Your task to perform on an android device: Go to display settings Image 0: 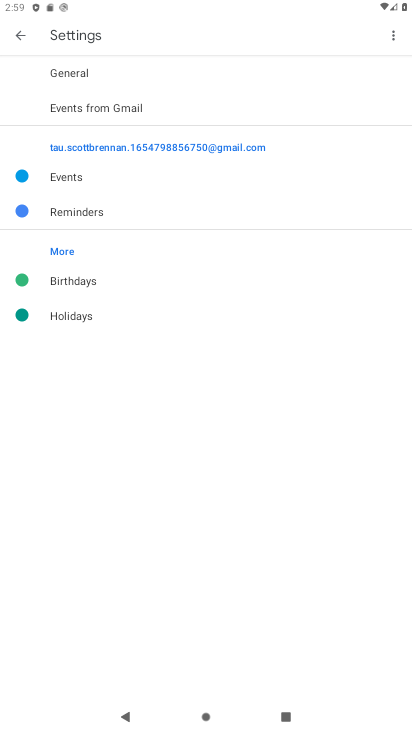
Step 0: press home button
Your task to perform on an android device: Go to display settings Image 1: 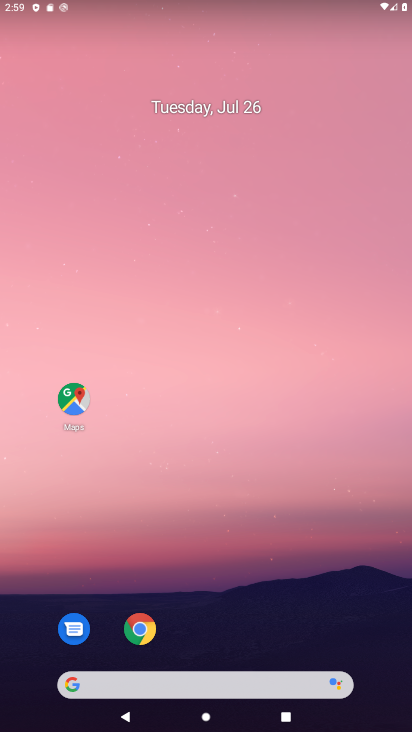
Step 1: drag from (289, 576) to (368, 11)
Your task to perform on an android device: Go to display settings Image 2: 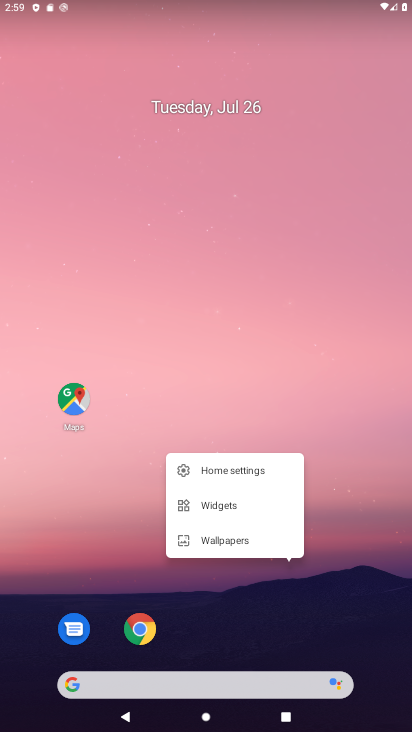
Step 2: click (360, 473)
Your task to perform on an android device: Go to display settings Image 3: 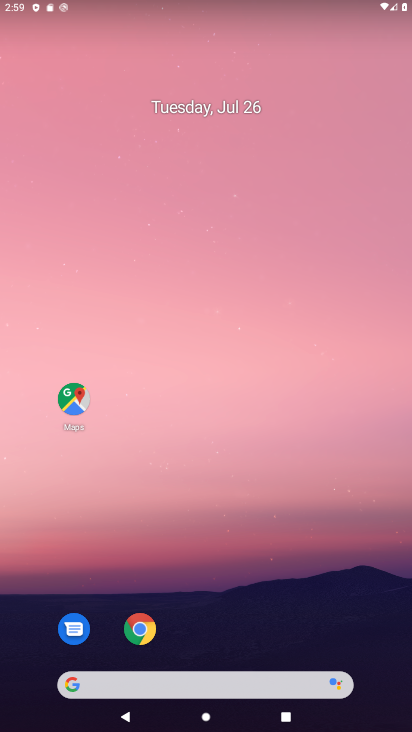
Step 3: drag from (326, 672) to (212, 78)
Your task to perform on an android device: Go to display settings Image 4: 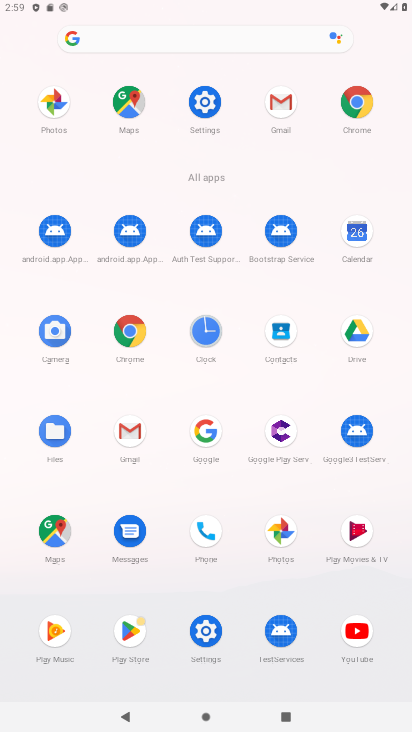
Step 4: click (201, 102)
Your task to perform on an android device: Go to display settings Image 5: 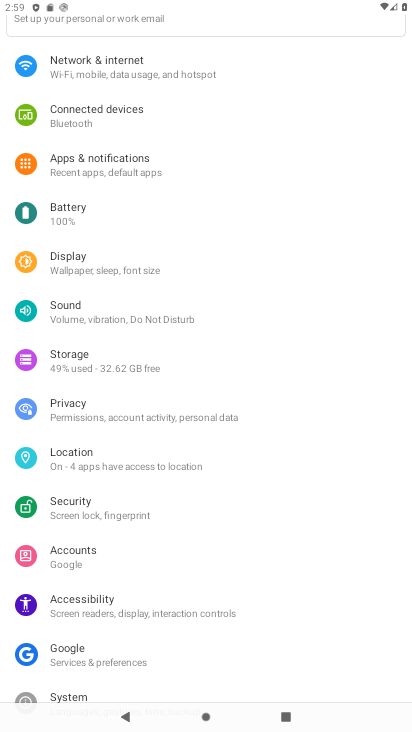
Step 5: click (62, 264)
Your task to perform on an android device: Go to display settings Image 6: 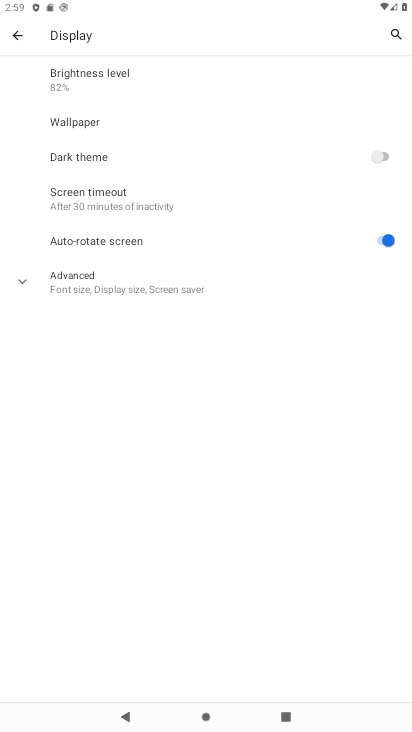
Step 6: click (106, 287)
Your task to perform on an android device: Go to display settings Image 7: 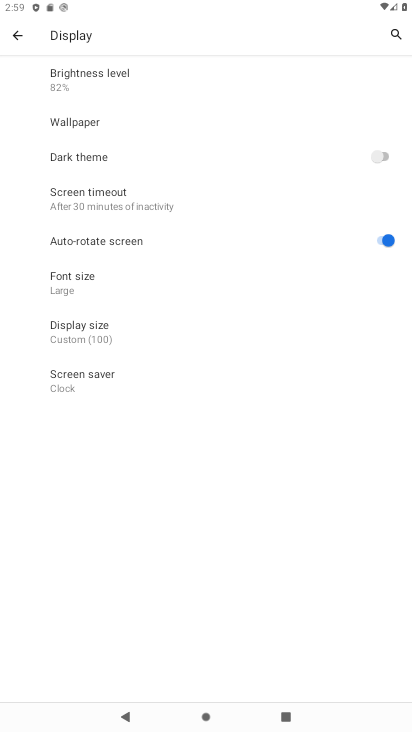
Step 7: task complete